Your task to perform on an android device: toggle notification dots Image 0: 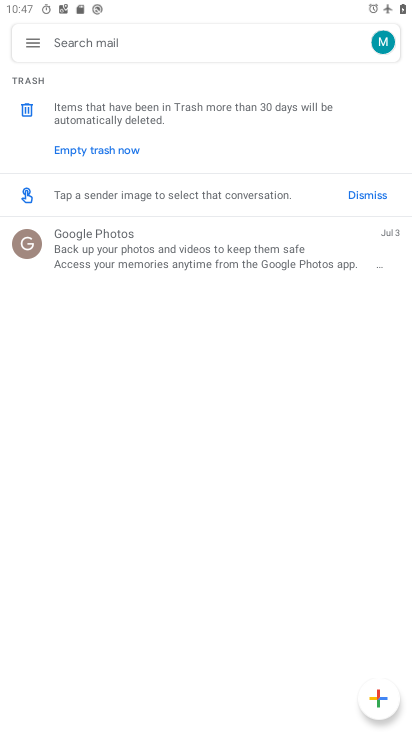
Step 0: press home button
Your task to perform on an android device: toggle notification dots Image 1: 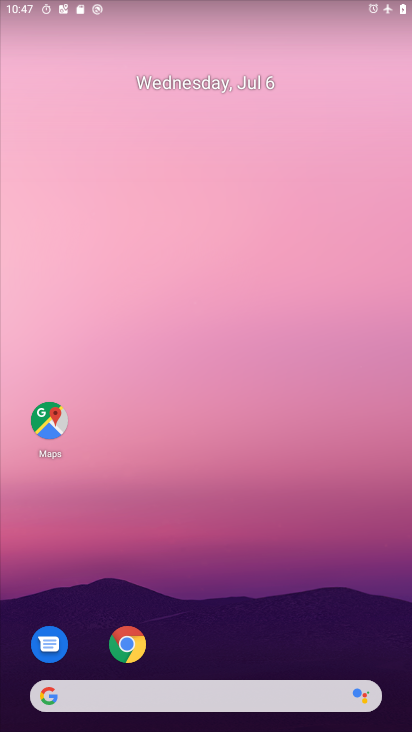
Step 1: drag from (225, 557) to (275, 10)
Your task to perform on an android device: toggle notification dots Image 2: 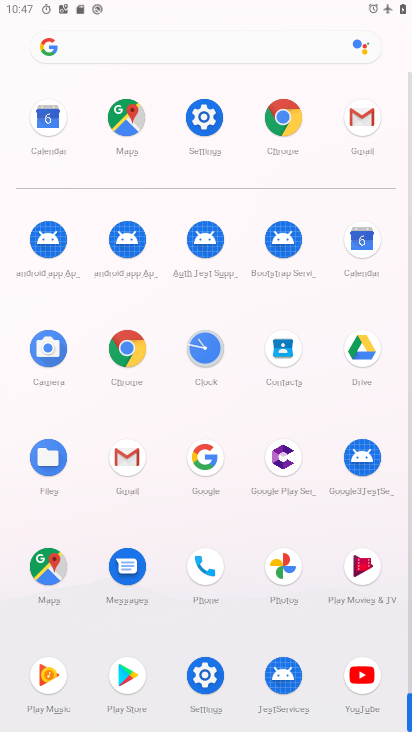
Step 2: click (212, 127)
Your task to perform on an android device: toggle notification dots Image 3: 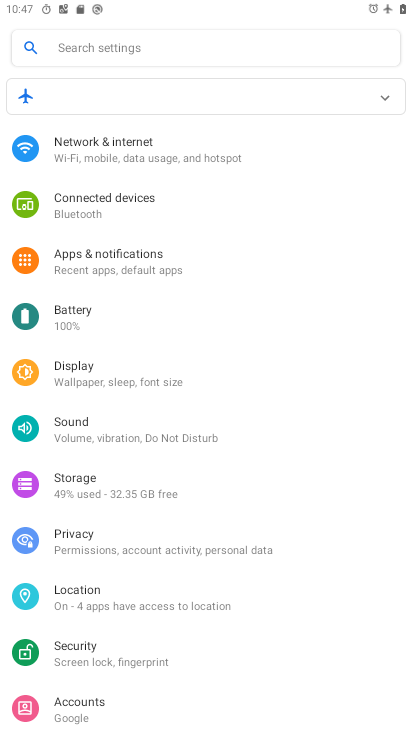
Step 3: click (143, 270)
Your task to perform on an android device: toggle notification dots Image 4: 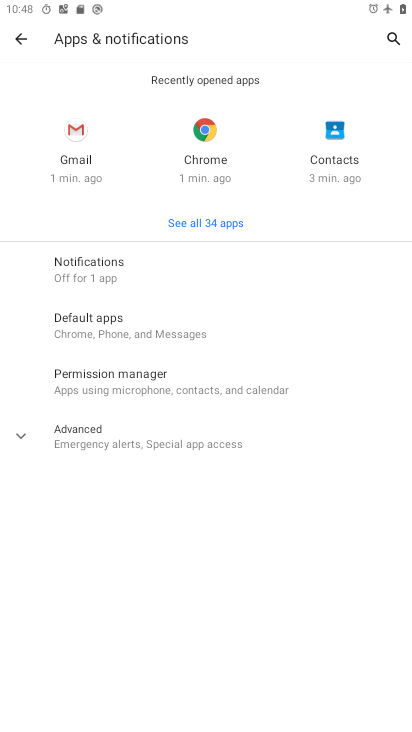
Step 4: click (144, 280)
Your task to perform on an android device: toggle notification dots Image 5: 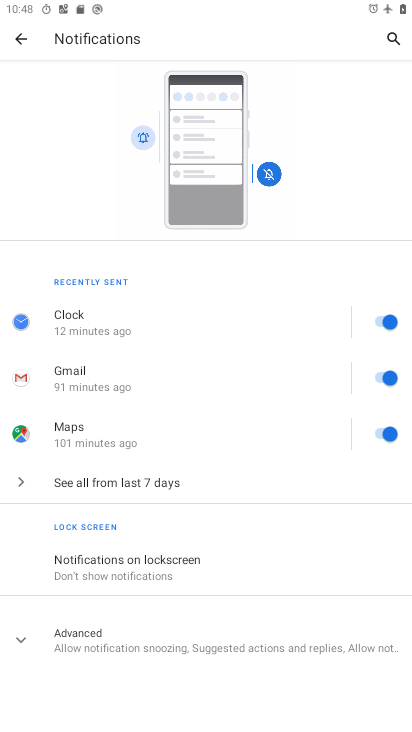
Step 5: click (111, 640)
Your task to perform on an android device: toggle notification dots Image 6: 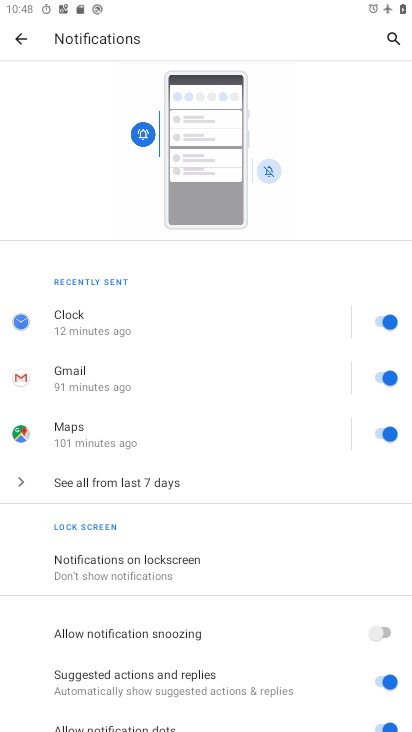
Step 6: drag from (172, 635) to (192, 399)
Your task to perform on an android device: toggle notification dots Image 7: 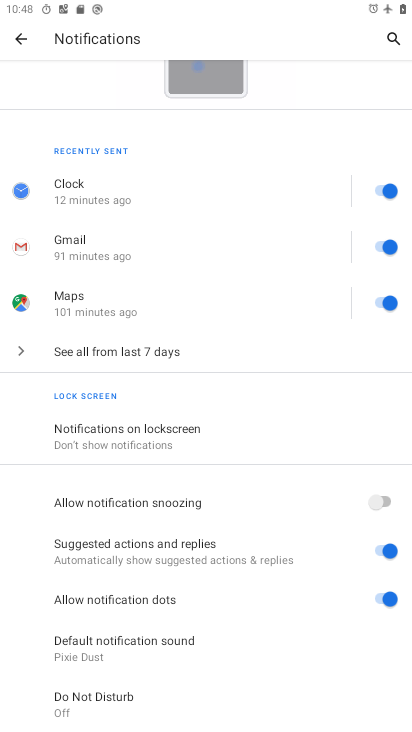
Step 7: click (190, 598)
Your task to perform on an android device: toggle notification dots Image 8: 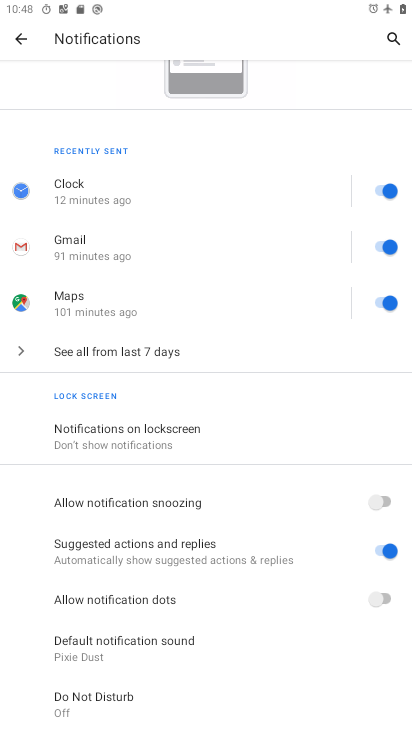
Step 8: task complete